Your task to perform on an android device: Search for the best books on Goodreads Image 0: 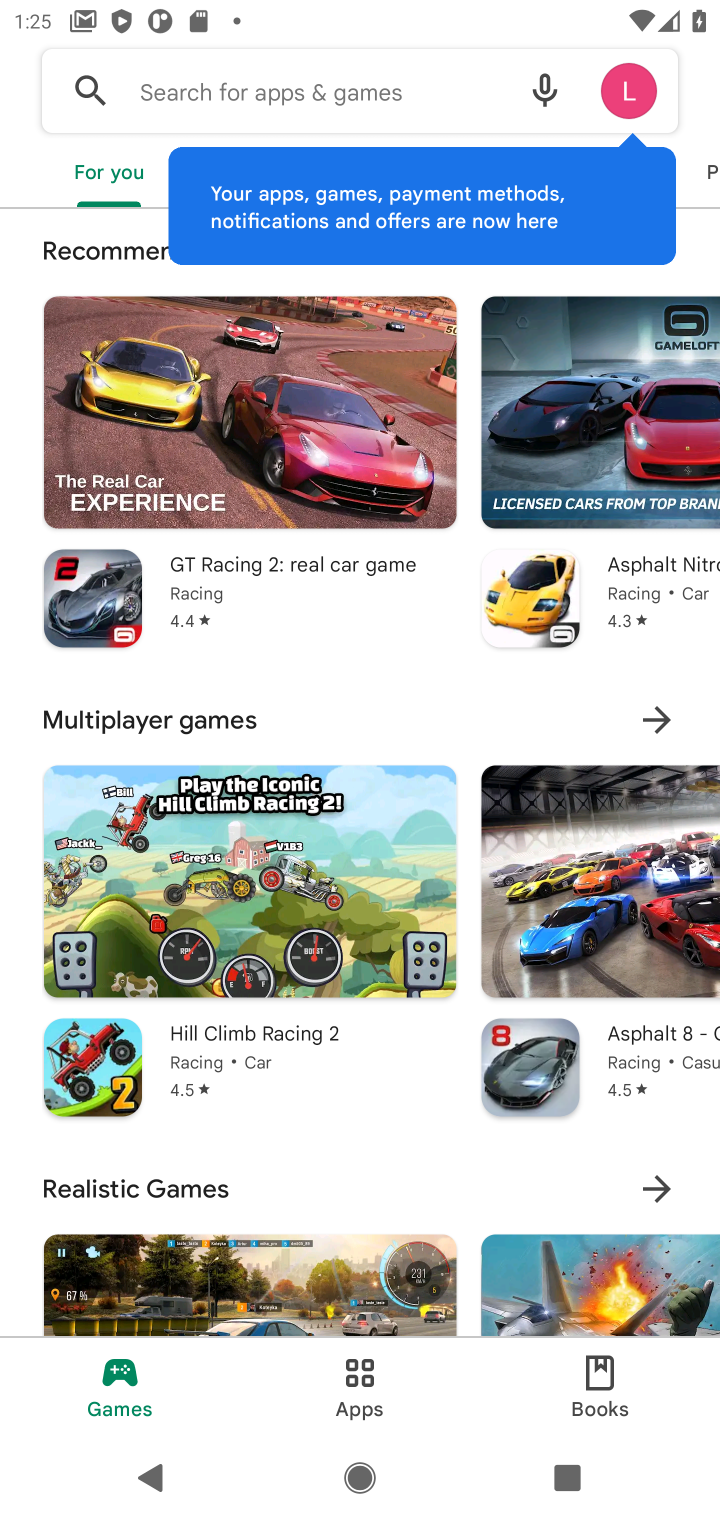
Step 0: press home button
Your task to perform on an android device: Search for the best books on Goodreads Image 1: 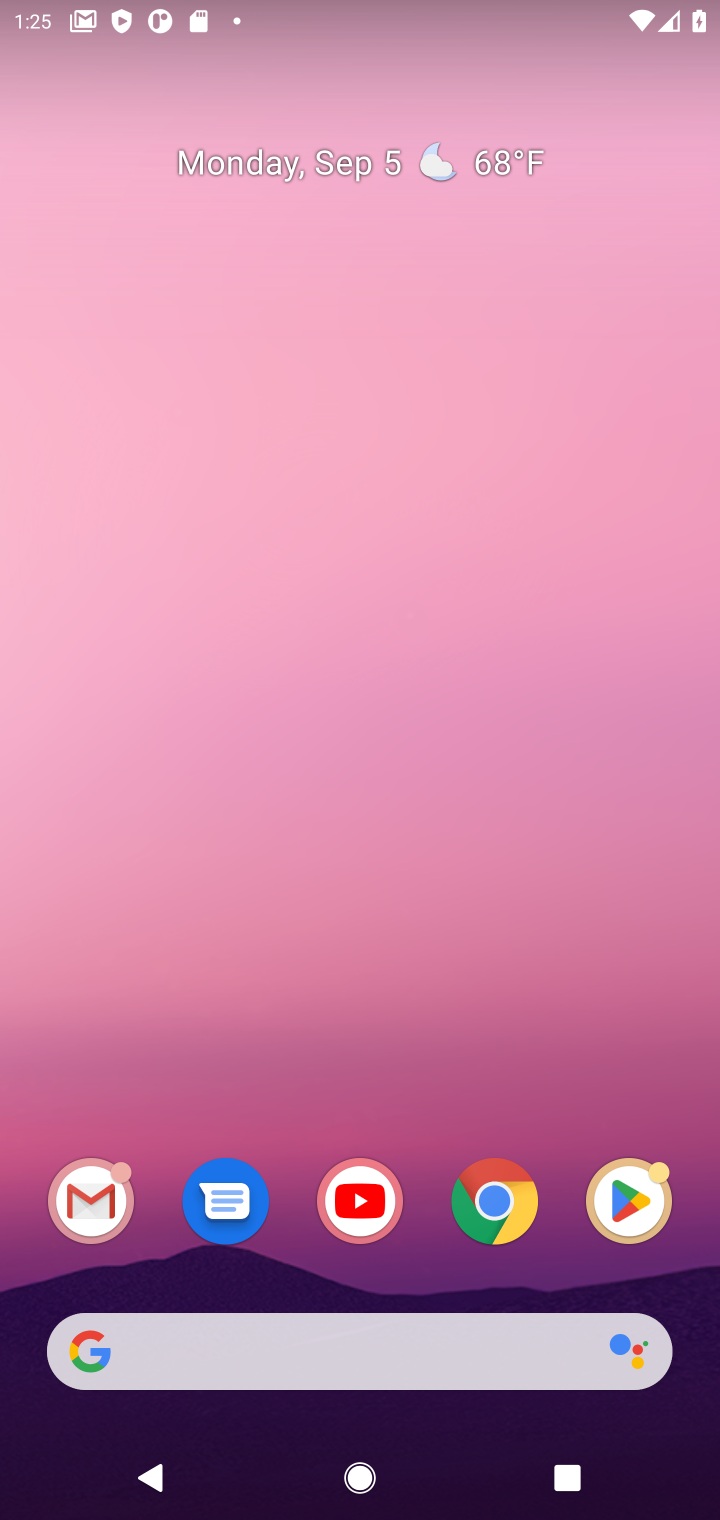
Step 1: click (482, 1212)
Your task to perform on an android device: Search for the best books on Goodreads Image 2: 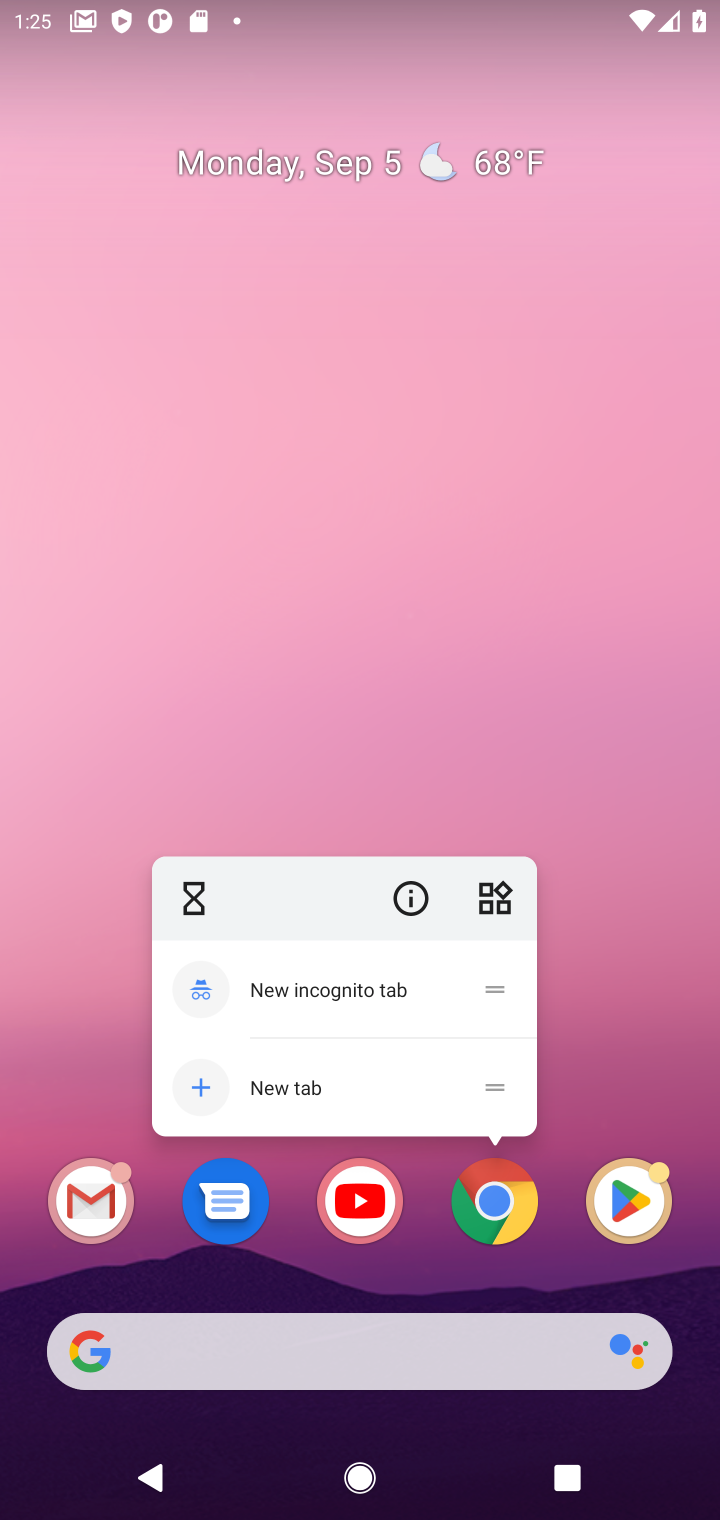
Step 2: click (482, 1208)
Your task to perform on an android device: Search for the best books on Goodreads Image 3: 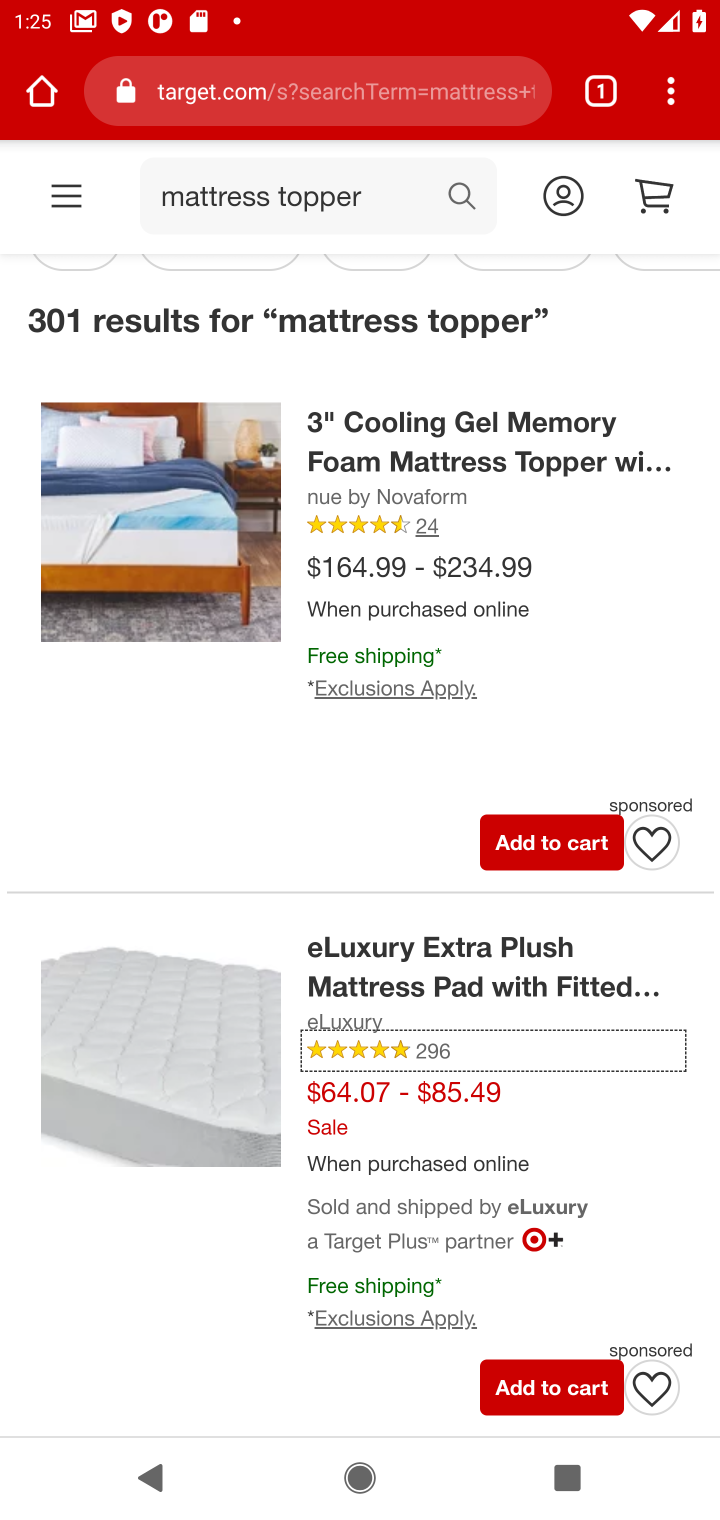
Step 3: click (354, 97)
Your task to perform on an android device: Search for the best books on Goodreads Image 4: 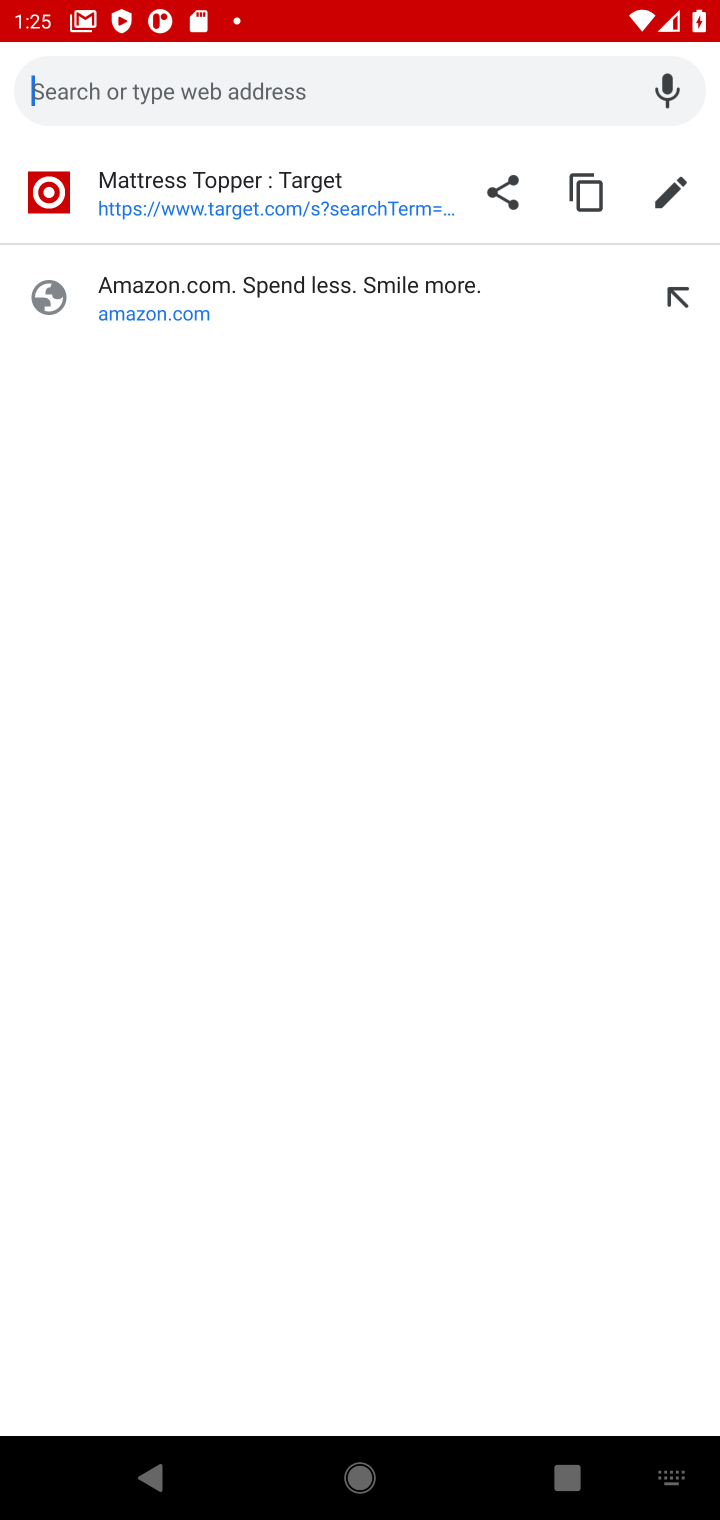
Step 4: type " Goodreads"
Your task to perform on an android device: Search for the best books on Goodreads Image 5: 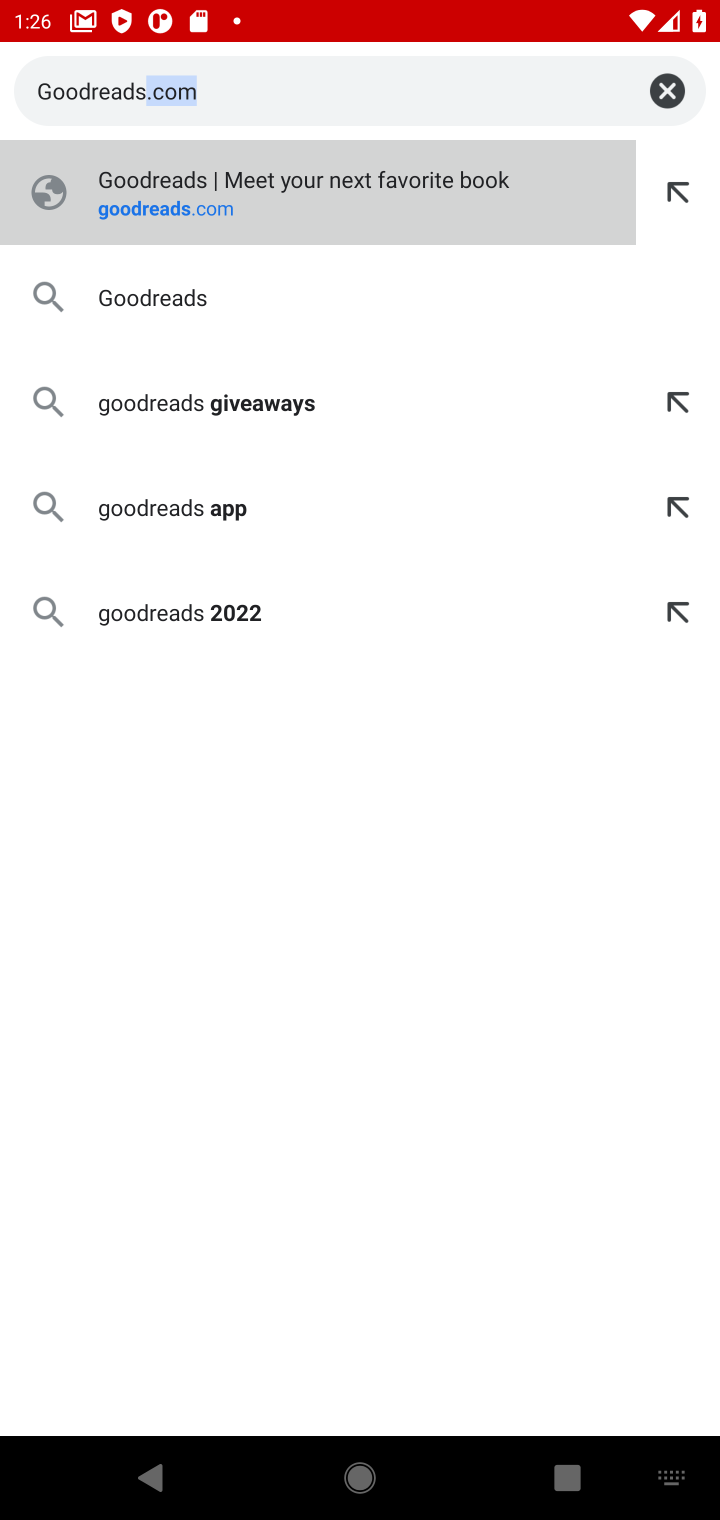
Step 5: press enter
Your task to perform on an android device: Search for the best books on Goodreads Image 6: 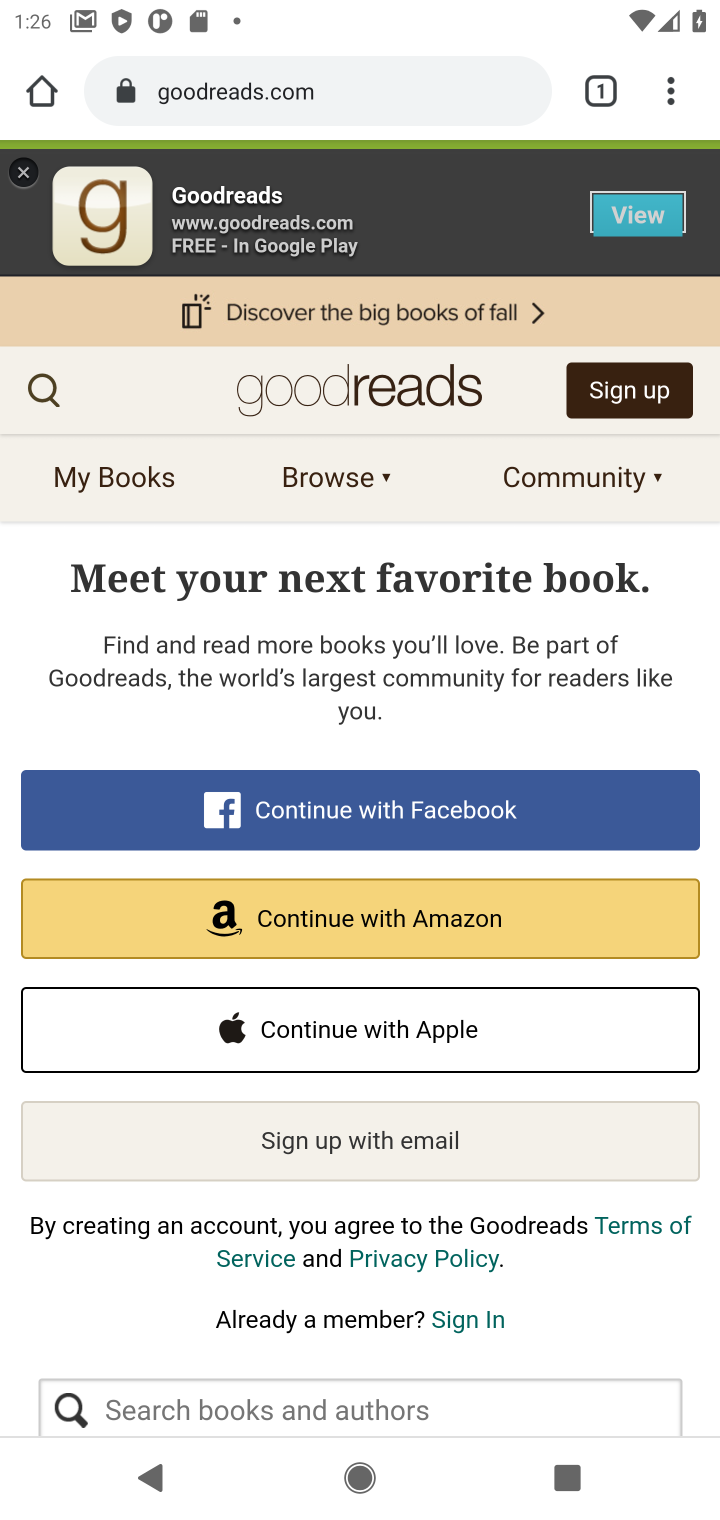
Step 6: click (36, 380)
Your task to perform on an android device: Search for the best books on Goodreads Image 7: 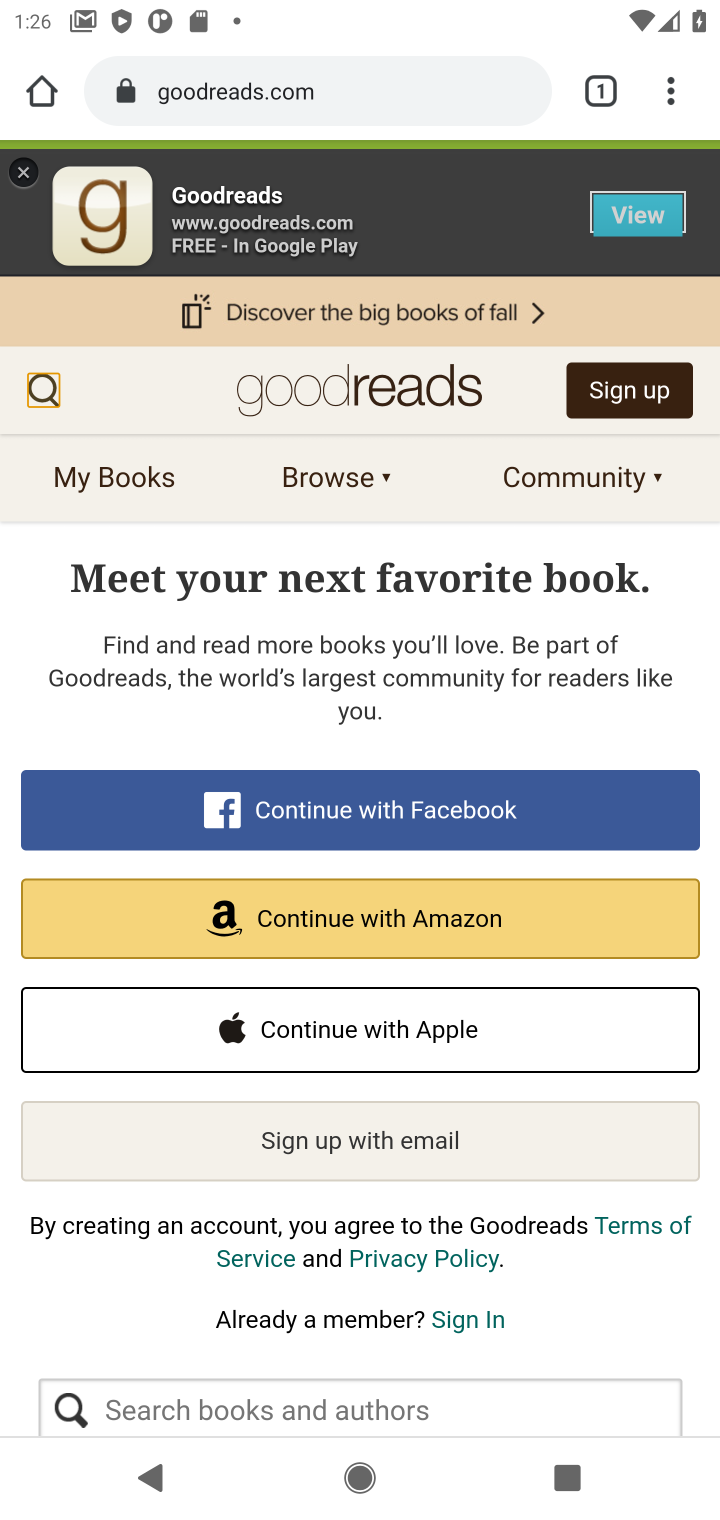
Step 7: click (39, 389)
Your task to perform on an android device: Search for the best books on Goodreads Image 8: 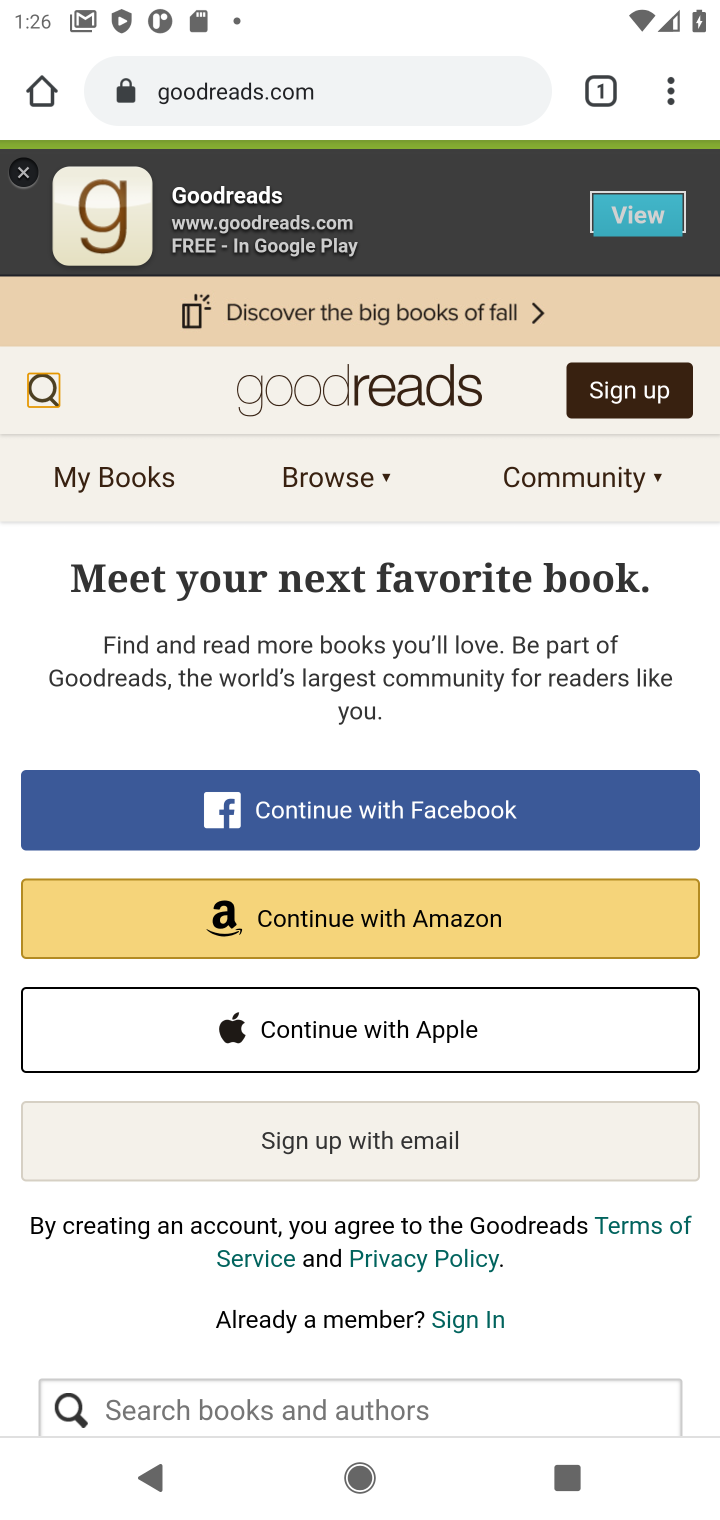
Step 8: click (36, 384)
Your task to perform on an android device: Search for the best books on Goodreads Image 9: 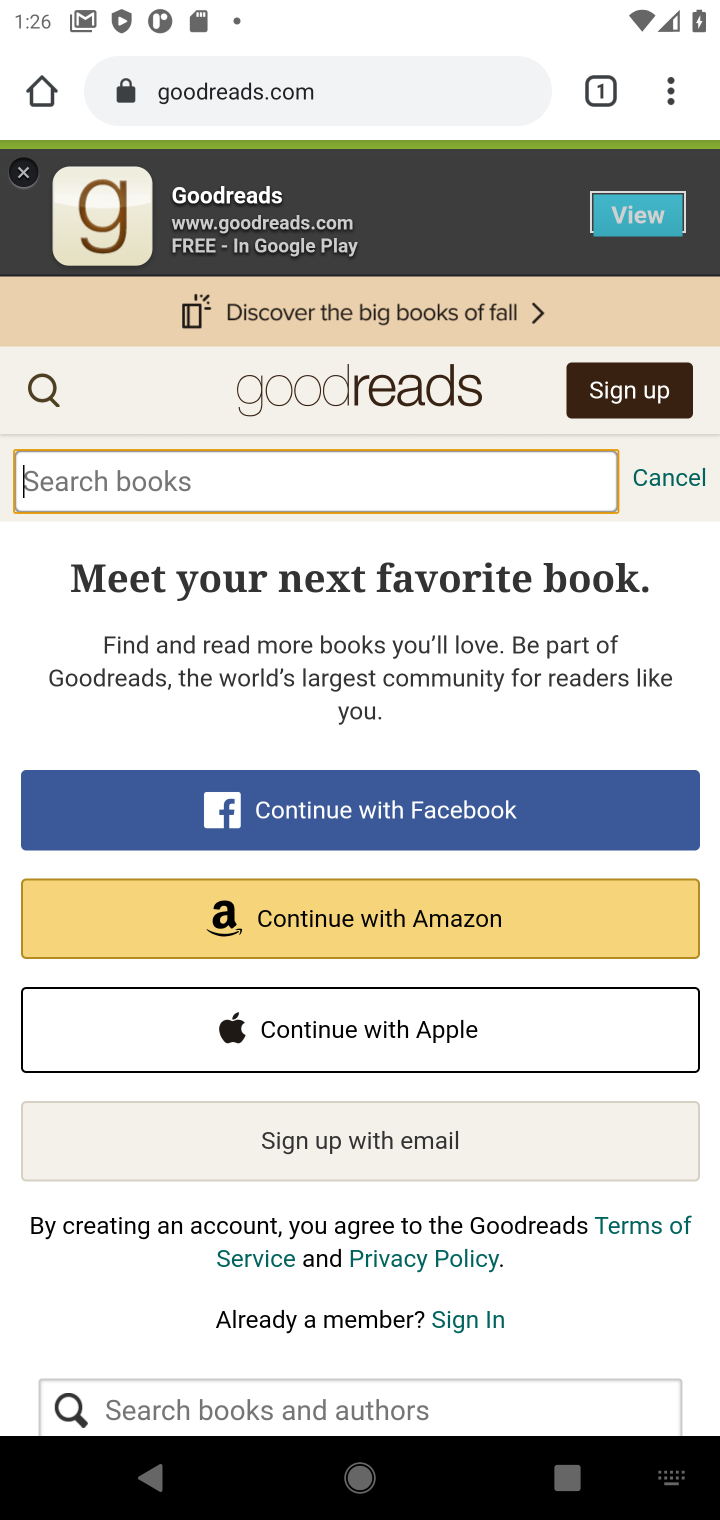
Step 9: press enter
Your task to perform on an android device: Search for the best books on Goodreads Image 10: 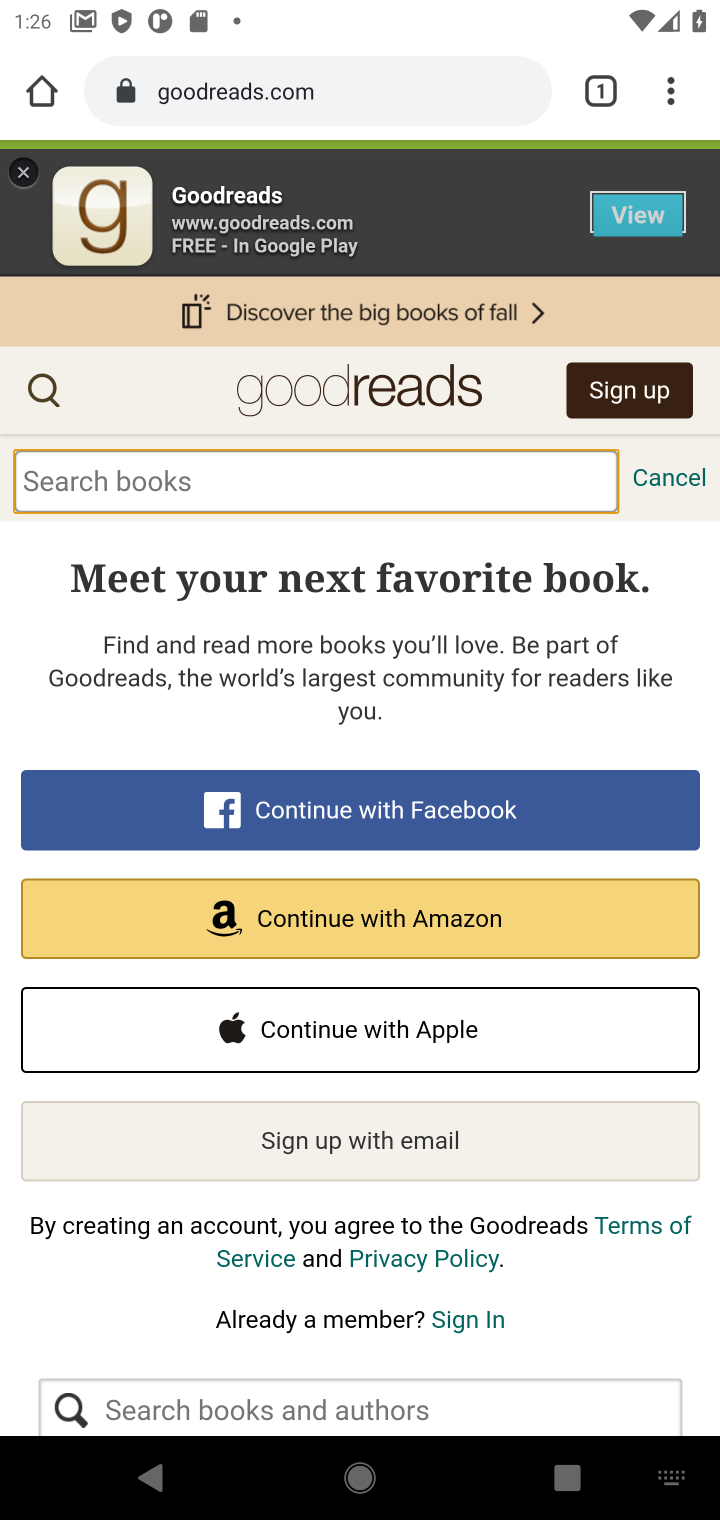
Step 10: type "best books"
Your task to perform on an android device: Search for the best books on Goodreads Image 11: 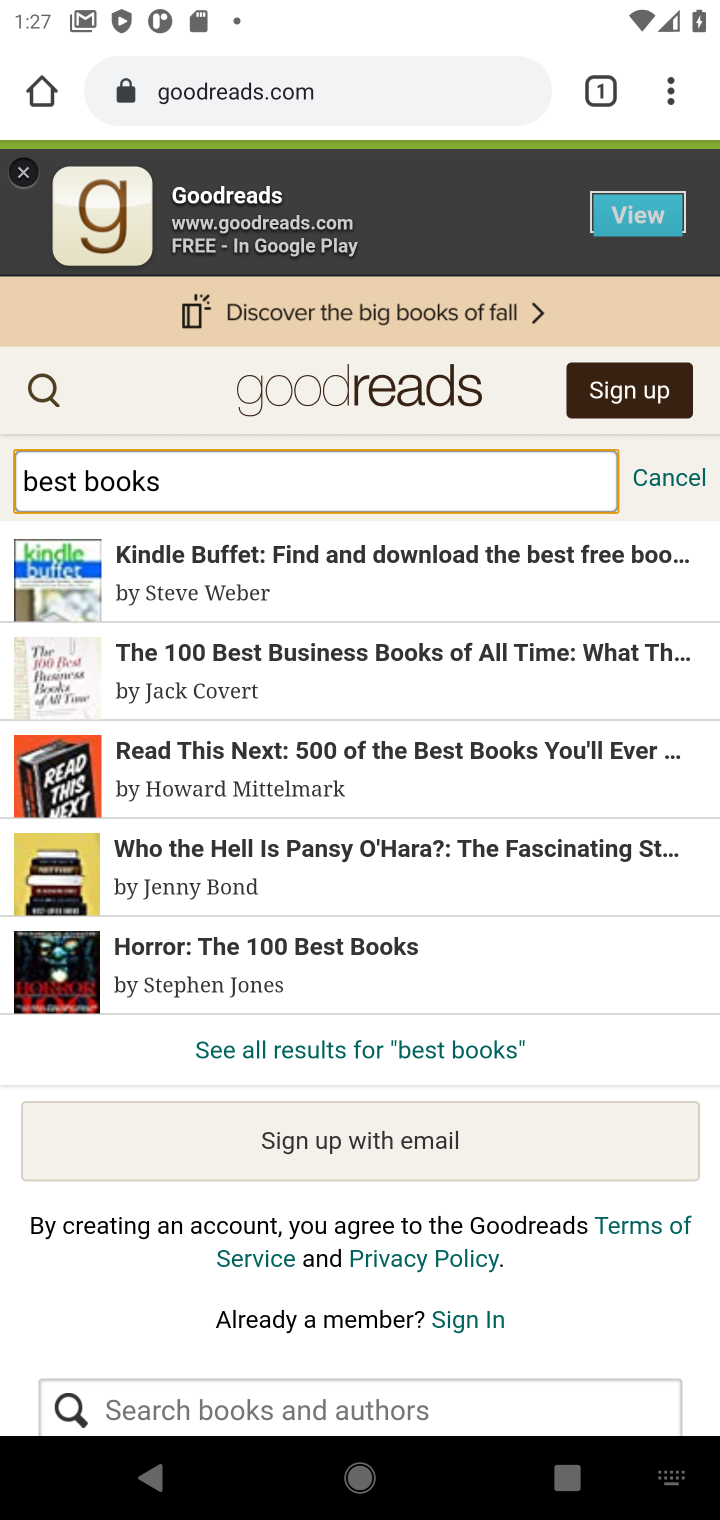
Step 11: task complete